Your task to perform on an android device: Open sound settings Image 0: 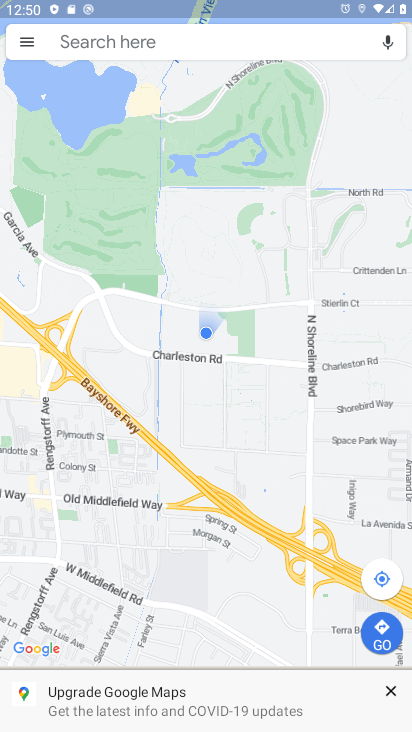
Step 0: press home button
Your task to perform on an android device: Open sound settings Image 1: 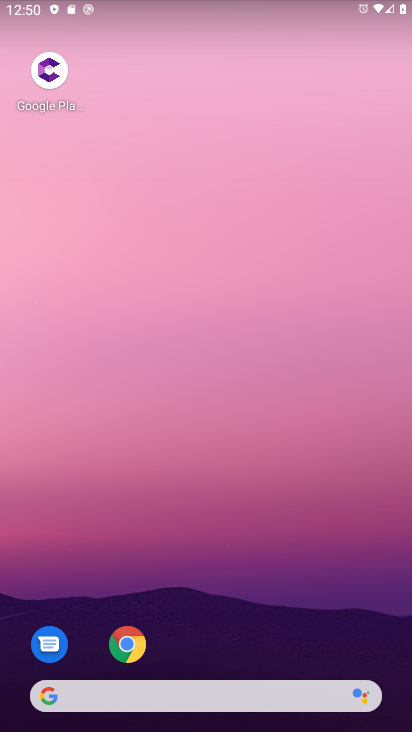
Step 1: drag from (257, 652) to (402, 26)
Your task to perform on an android device: Open sound settings Image 2: 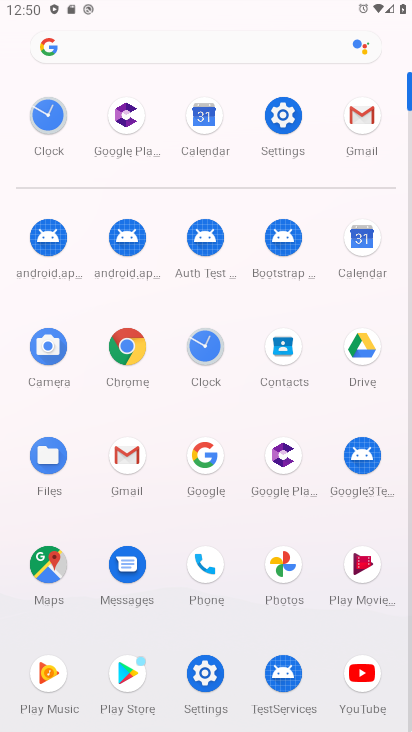
Step 2: click (279, 127)
Your task to perform on an android device: Open sound settings Image 3: 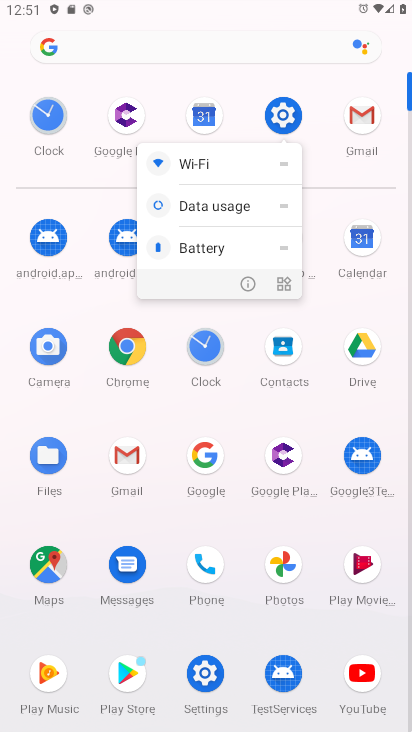
Step 3: click (290, 109)
Your task to perform on an android device: Open sound settings Image 4: 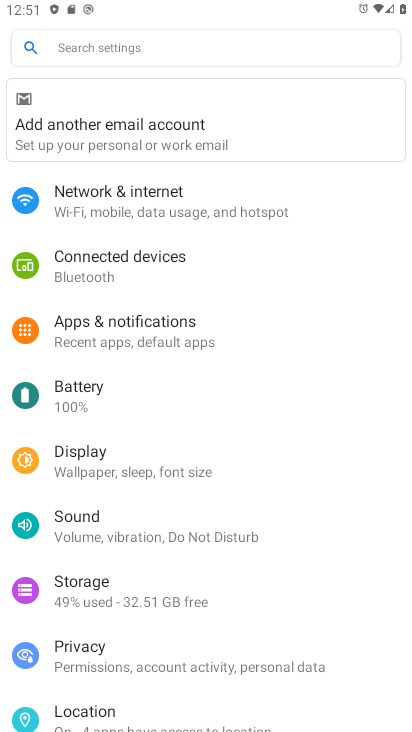
Step 4: click (85, 526)
Your task to perform on an android device: Open sound settings Image 5: 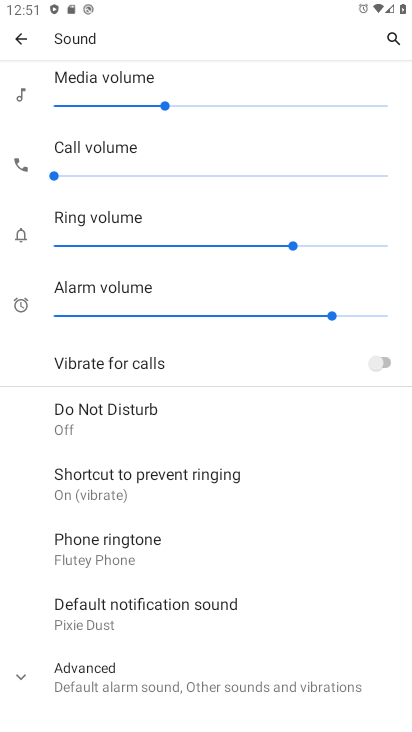
Step 5: task complete